Your task to perform on an android device: Open ESPN.com Image 0: 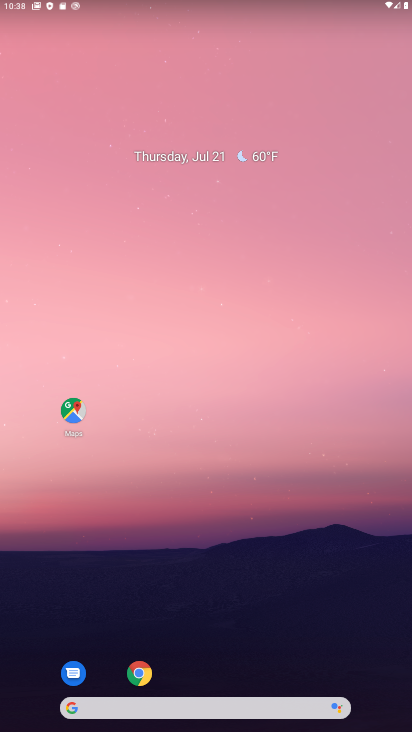
Step 0: press home button
Your task to perform on an android device: Open ESPN.com Image 1: 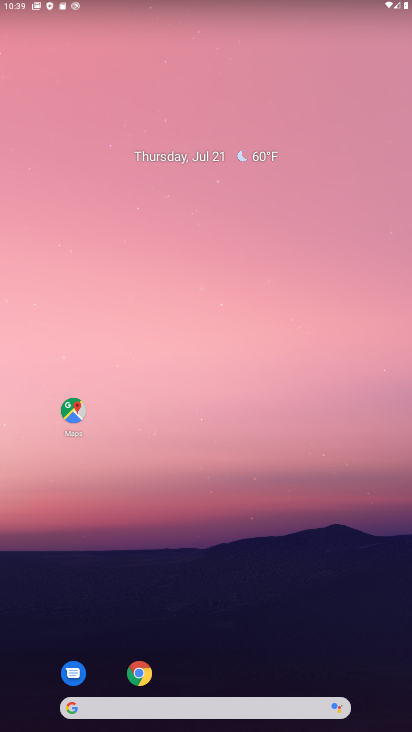
Step 1: click (131, 668)
Your task to perform on an android device: Open ESPN.com Image 2: 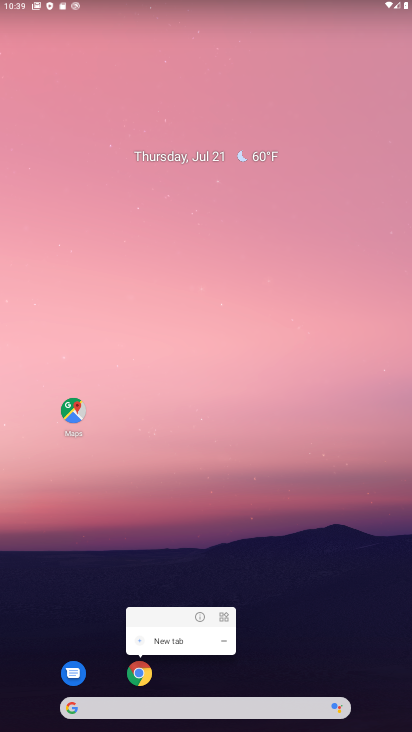
Step 2: click (139, 673)
Your task to perform on an android device: Open ESPN.com Image 3: 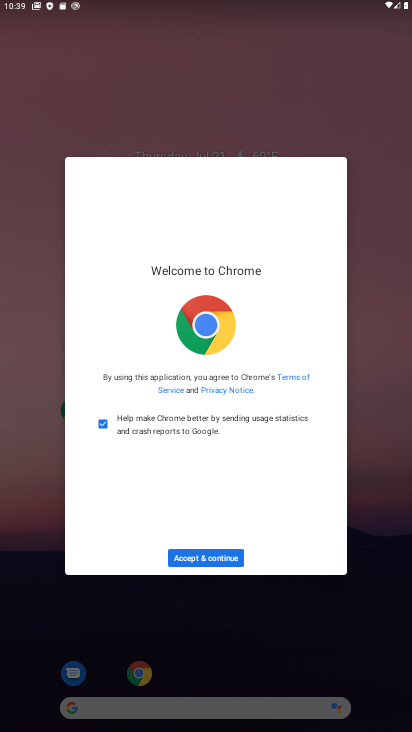
Step 3: click (205, 553)
Your task to perform on an android device: Open ESPN.com Image 4: 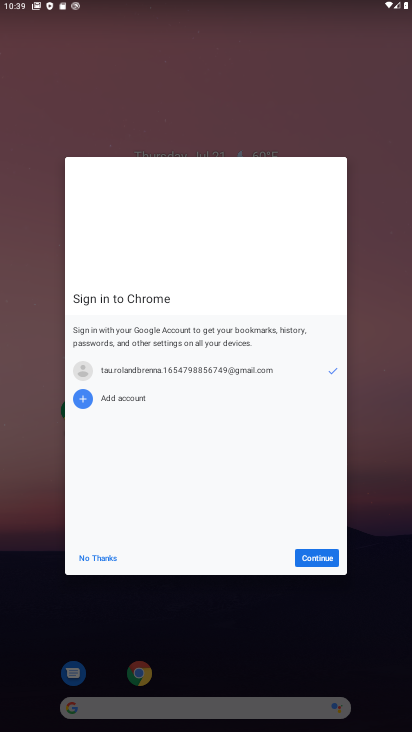
Step 4: click (317, 553)
Your task to perform on an android device: Open ESPN.com Image 5: 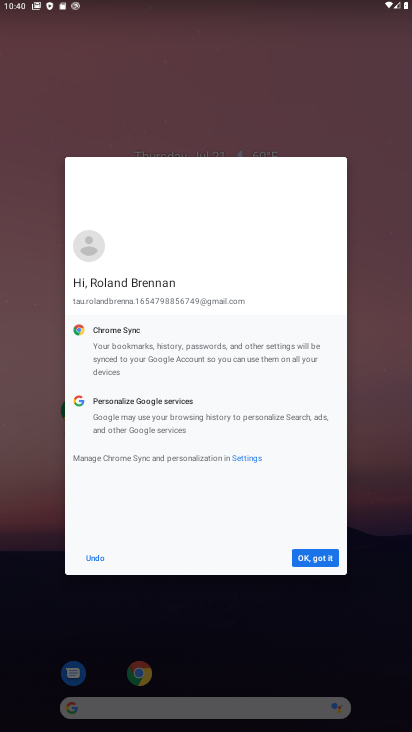
Step 5: click (308, 554)
Your task to perform on an android device: Open ESPN.com Image 6: 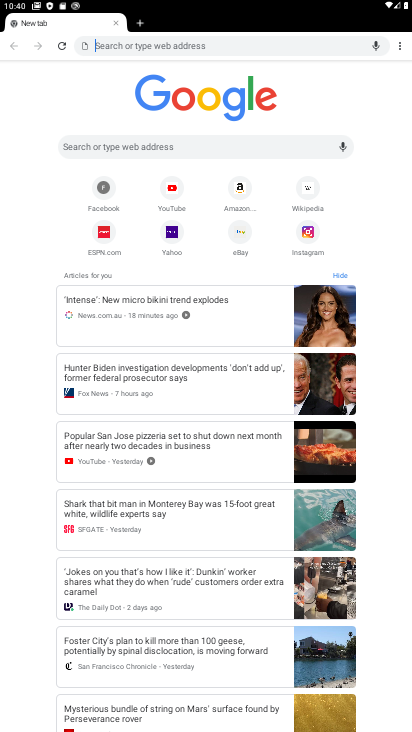
Step 6: click (105, 232)
Your task to perform on an android device: Open ESPN.com Image 7: 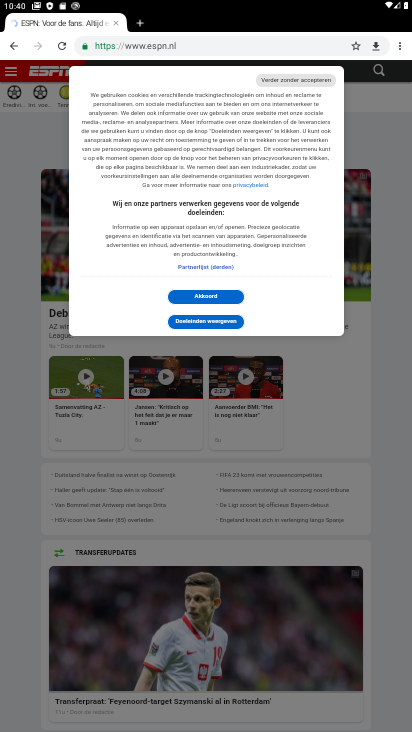
Step 7: click (213, 294)
Your task to perform on an android device: Open ESPN.com Image 8: 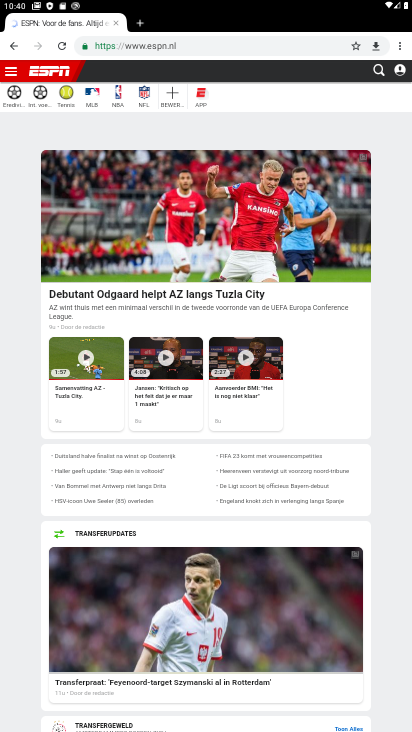
Step 8: task complete